Your task to perform on an android device: Find coffee shops on Maps Image 0: 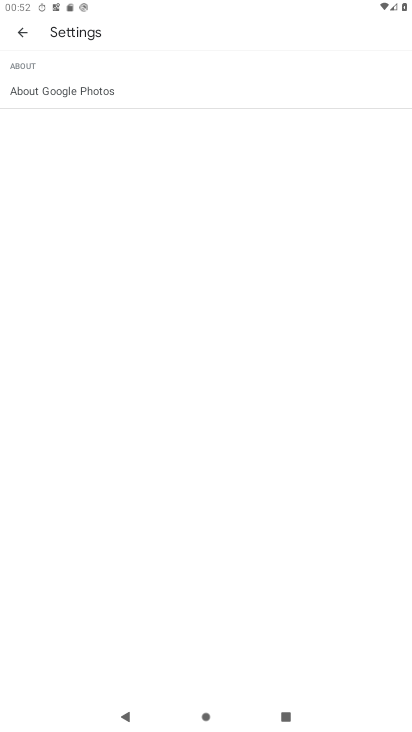
Step 0: press home button
Your task to perform on an android device: Find coffee shops on Maps Image 1: 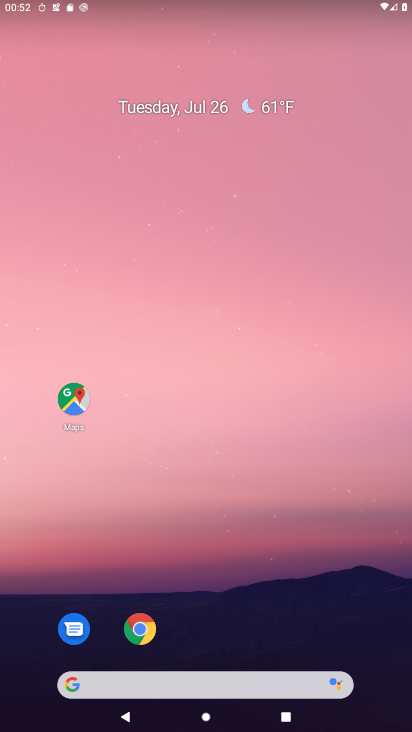
Step 1: click (63, 401)
Your task to perform on an android device: Find coffee shops on Maps Image 2: 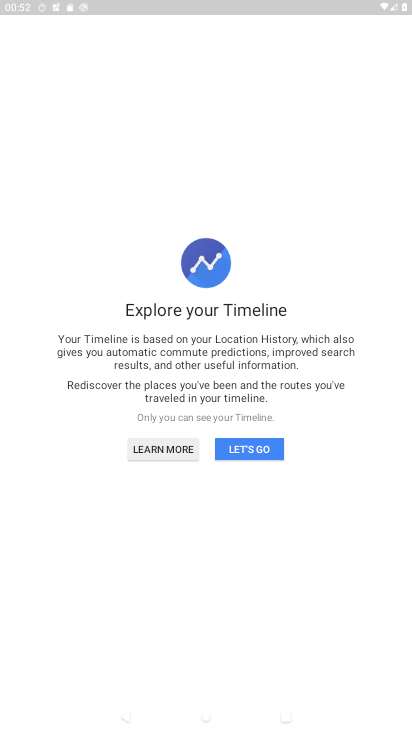
Step 2: click (241, 445)
Your task to perform on an android device: Find coffee shops on Maps Image 3: 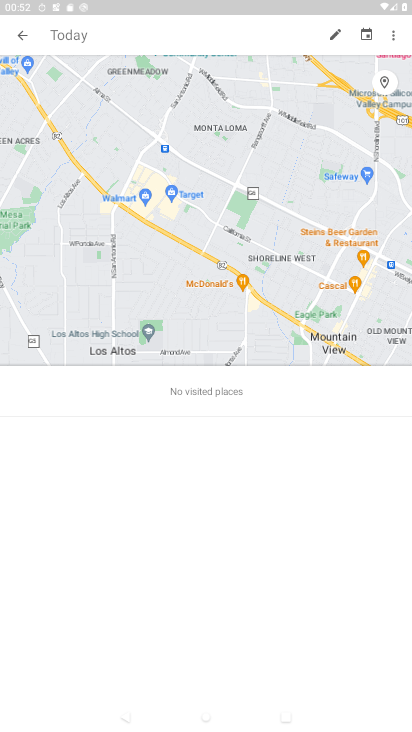
Step 3: click (14, 29)
Your task to perform on an android device: Find coffee shops on Maps Image 4: 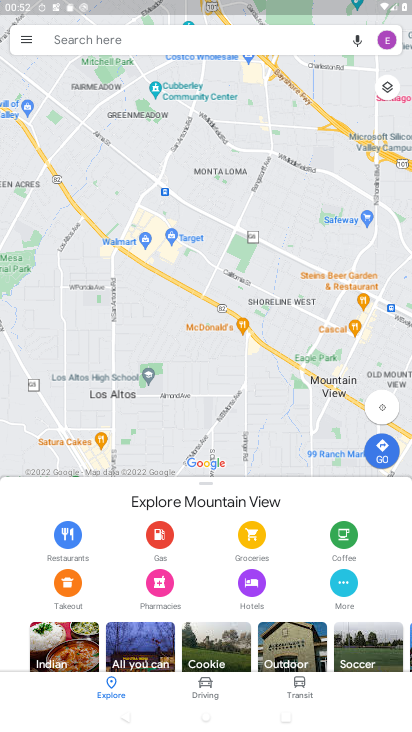
Step 4: click (143, 41)
Your task to perform on an android device: Find coffee shops on Maps Image 5: 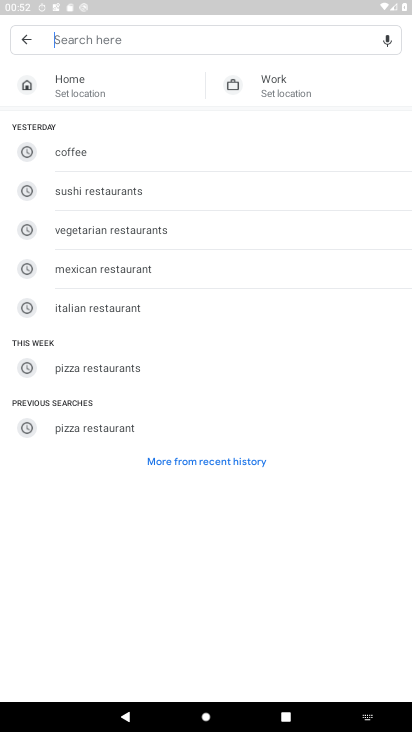
Step 5: type "coffee shops"
Your task to perform on an android device: Find coffee shops on Maps Image 6: 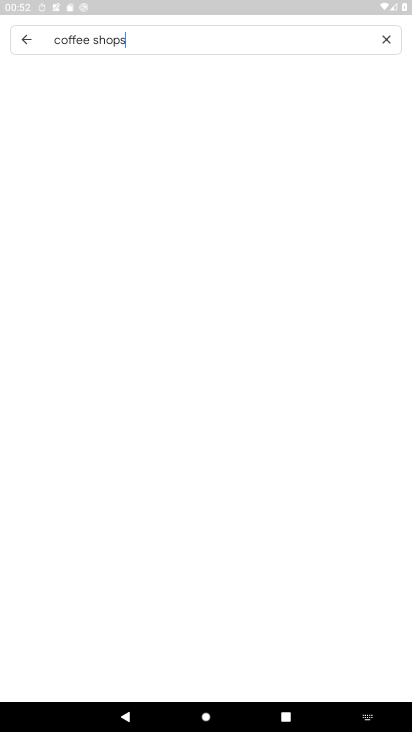
Step 6: type ""
Your task to perform on an android device: Find coffee shops on Maps Image 7: 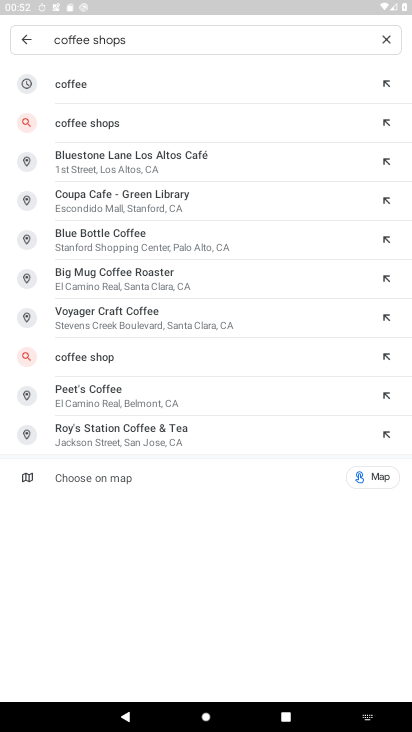
Step 7: click (129, 121)
Your task to perform on an android device: Find coffee shops on Maps Image 8: 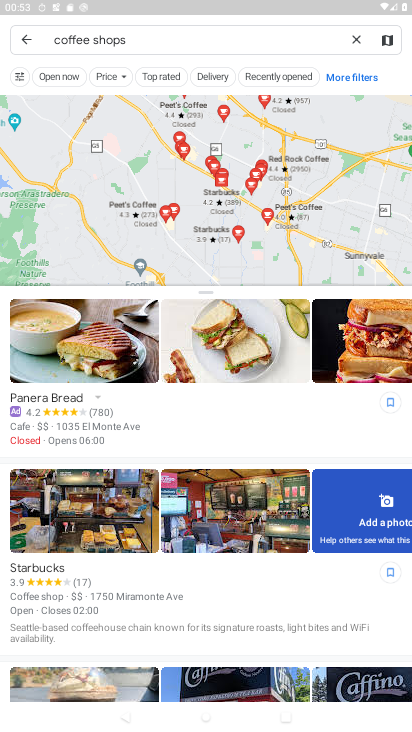
Step 8: task complete